Your task to perform on an android device: Search for sushi restaurants on Maps Image 0: 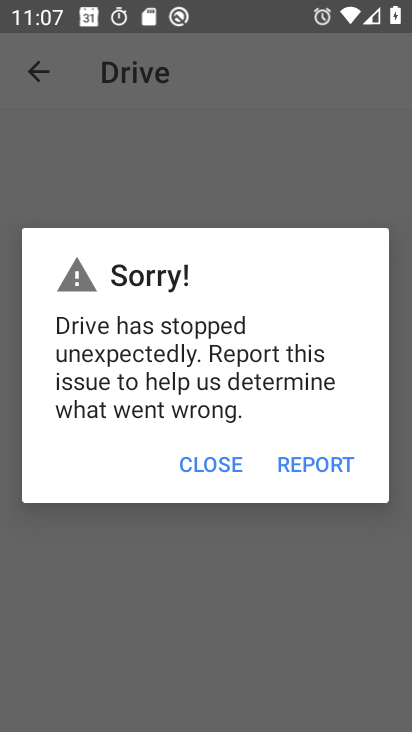
Step 0: press home button
Your task to perform on an android device: Search for sushi restaurants on Maps Image 1: 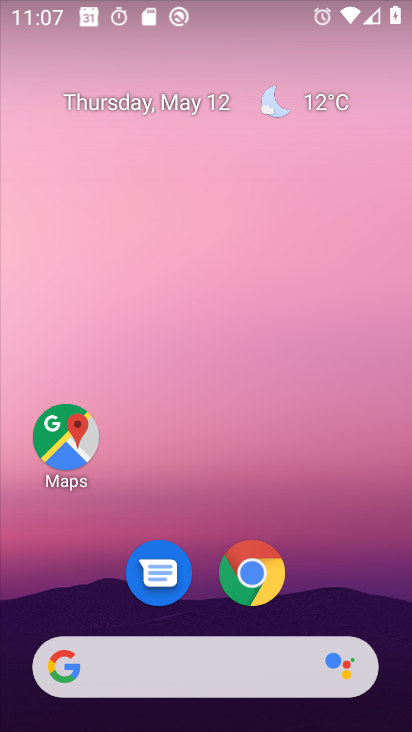
Step 1: click (54, 432)
Your task to perform on an android device: Search for sushi restaurants on Maps Image 2: 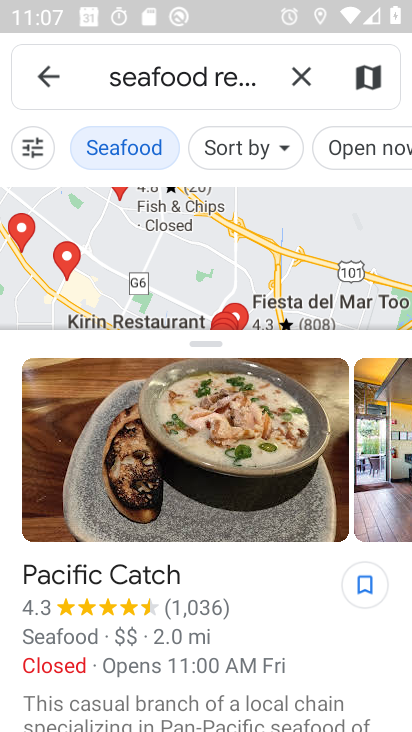
Step 2: click (309, 81)
Your task to perform on an android device: Search for sushi restaurants on Maps Image 3: 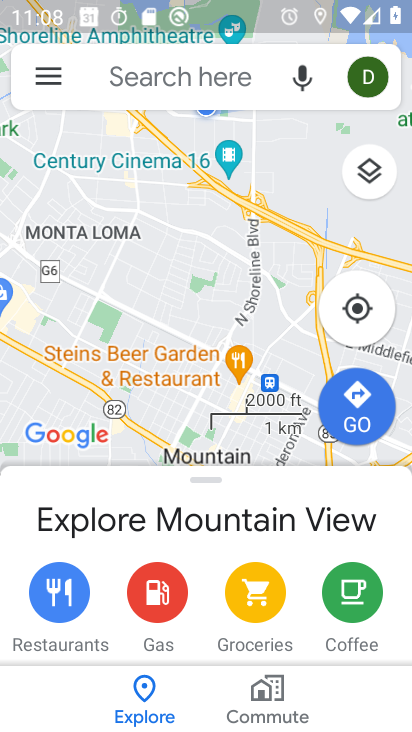
Step 3: click (166, 79)
Your task to perform on an android device: Search for sushi restaurants on Maps Image 4: 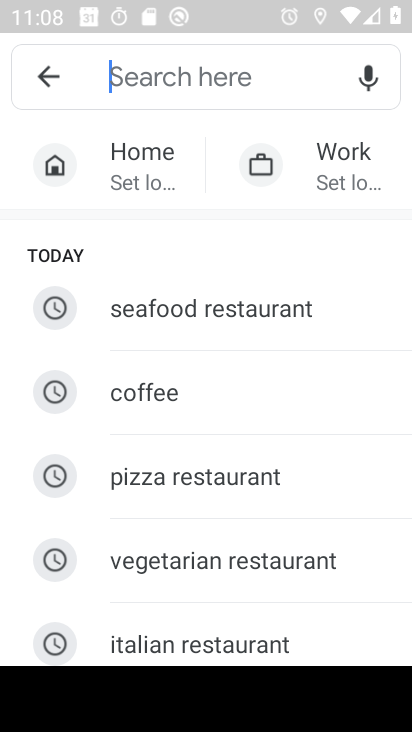
Step 4: type "sushi restaurants "
Your task to perform on an android device: Search for sushi restaurants on Maps Image 5: 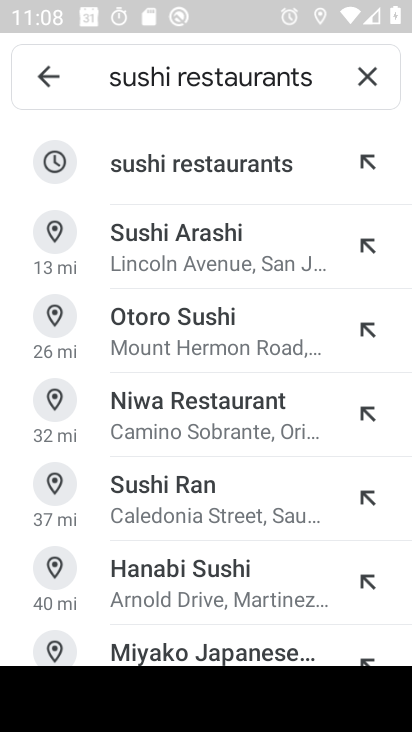
Step 5: click (137, 162)
Your task to perform on an android device: Search for sushi restaurants on Maps Image 6: 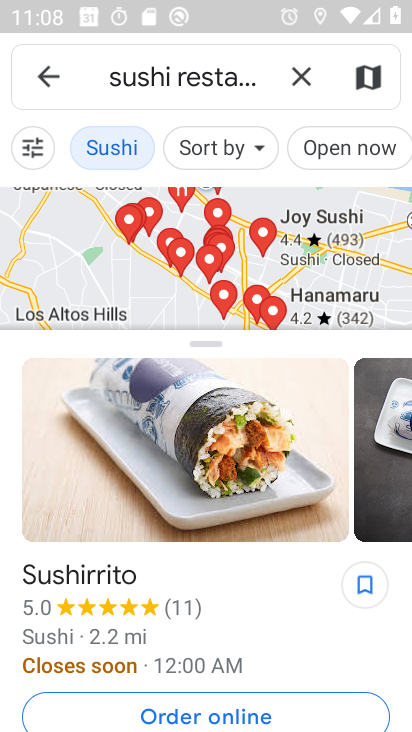
Step 6: task complete